Your task to perform on an android device: Go to ESPN.com Image 0: 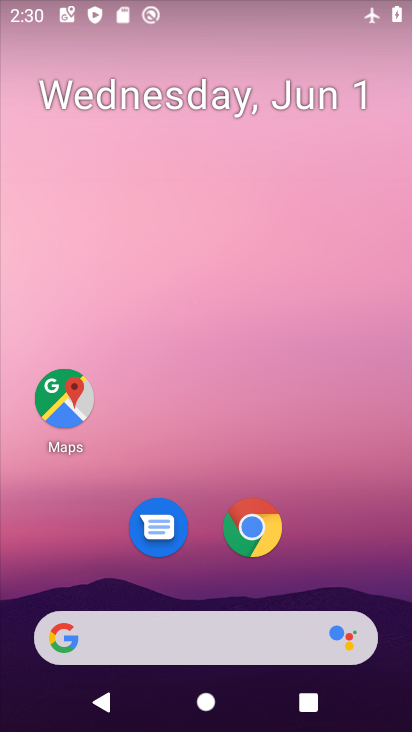
Step 0: click (251, 526)
Your task to perform on an android device: Go to ESPN.com Image 1: 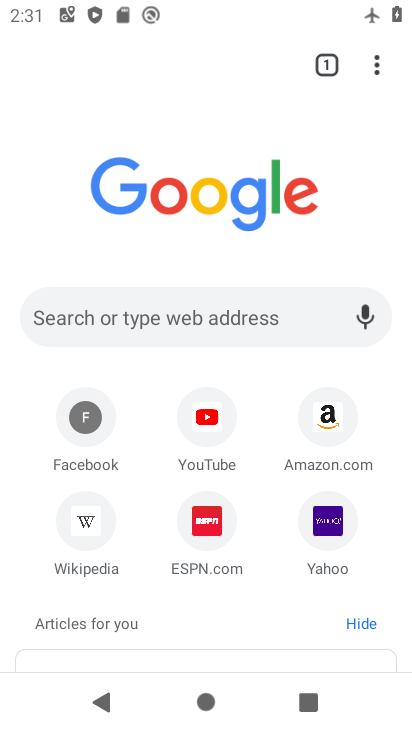
Step 1: click (214, 520)
Your task to perform on an android device: Go to ESPN.com Image 2: 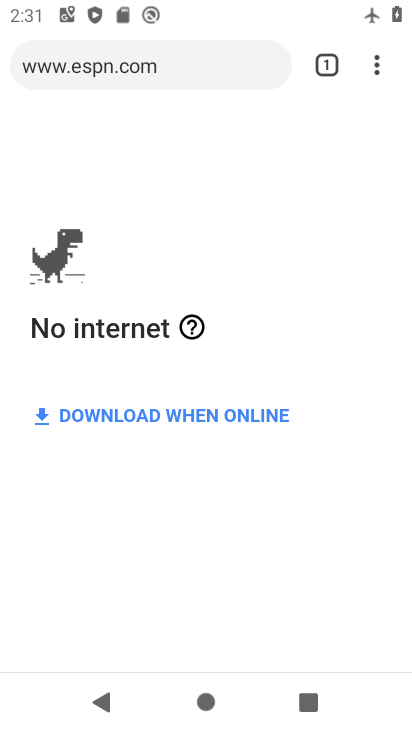
Step 2: task complete